Your task to perform on an android device: toggle airplane mode Image 0: 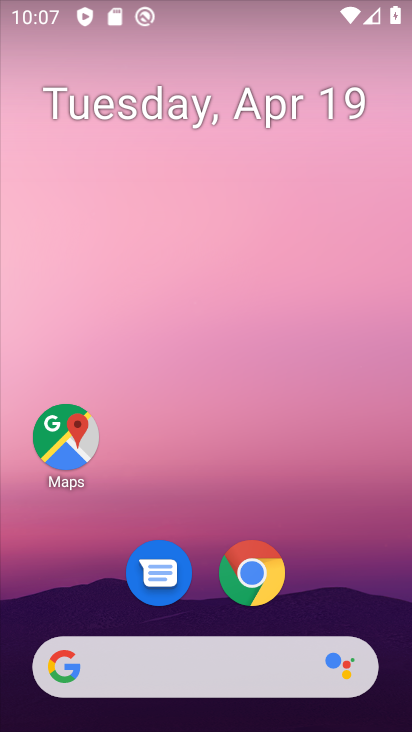
Step 0: drag from (371, 547) to (368, 142)
Your task to perform on an android device: toggle airplane mode Image 1: 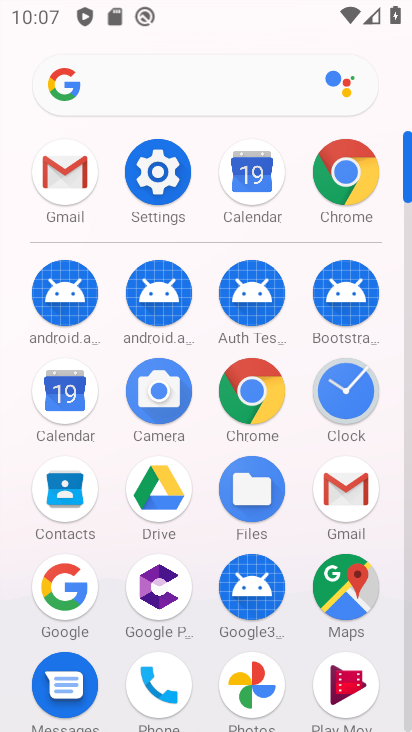
Step 1: click (150, 184)
Your task to perform on an android device: toggle airplane mode Image 2: 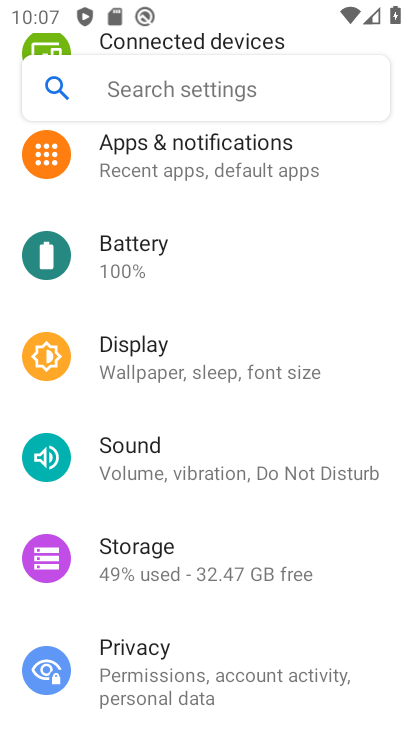
Step 2: drag from (374, 601) to (365, 361)
Your task to perform on an android device: toggle airplane mode Image 3: 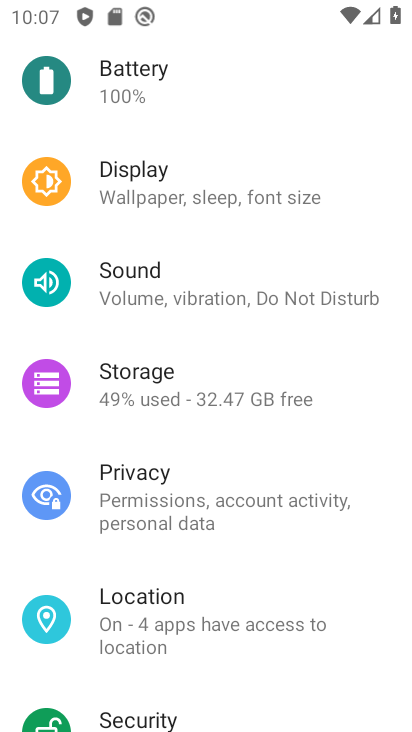
Step 3: drag from (373, 602) to (377, 170)
Your task to perform on an android device: toggle airplane mode Image 4: 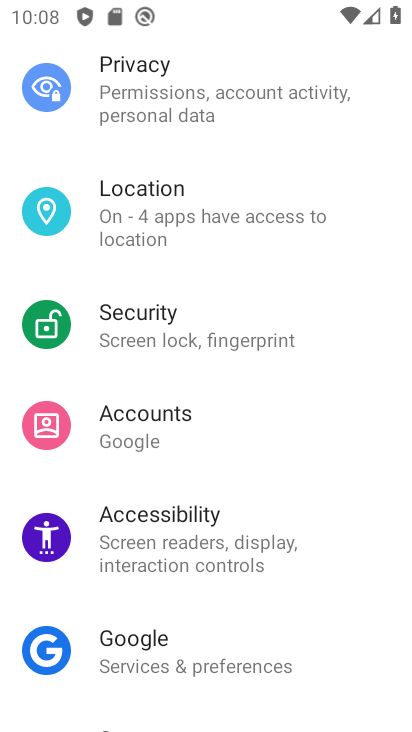
Step 4: drag from (361, 590) to (363, 369)
Your task to perform on an android device: toggle airplane mode Image 5: 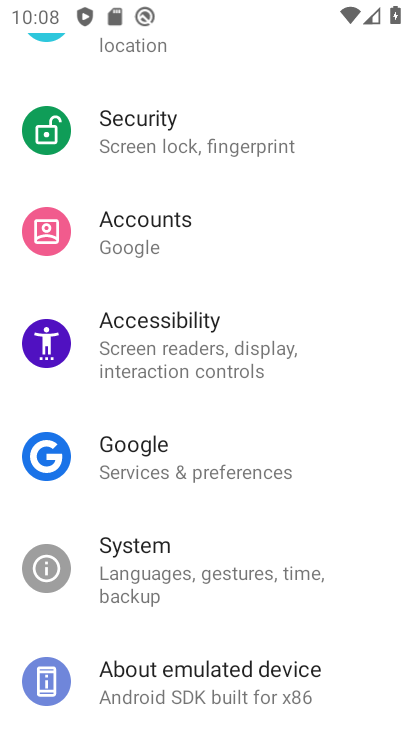
Step 5: drag from (373, 234) to (381, 513)
Your task to perform on an android device: toggle airplane mode Image 6: 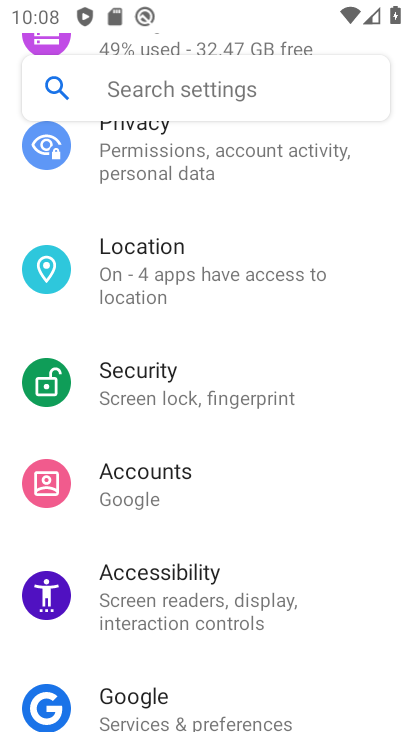
Step 6: drag from (362, 259) to (358, 524)
Your task to perform on an android device: toggle airplane mode Image 7: 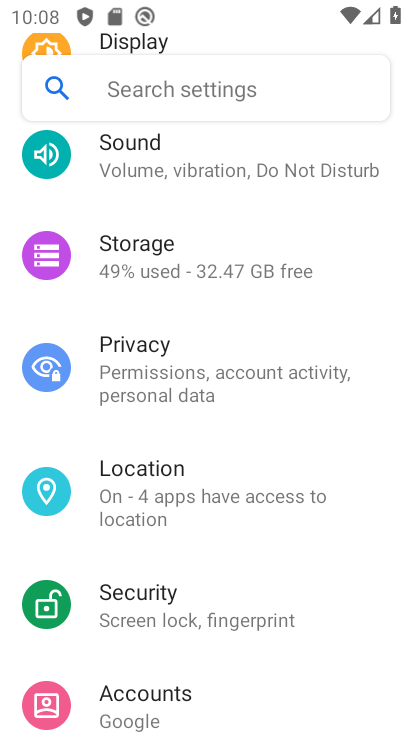
Step 7: drag from (369, 266) to (359, 534)
Your task to perform on an android device: toggle airplane mode Image 8: 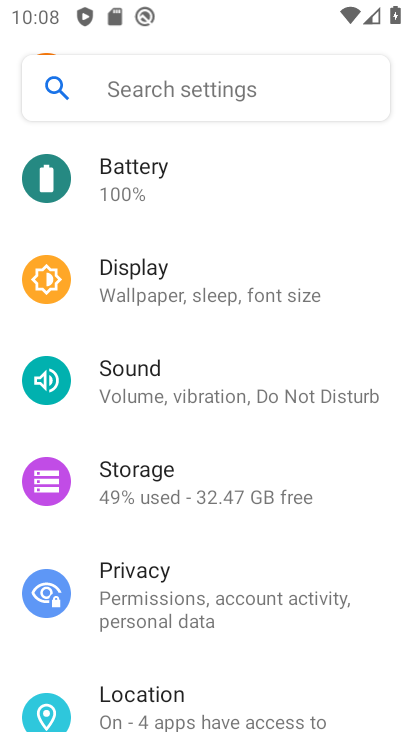
Step 8: drag from (362, 262) to (364, 555)
Your task to perform on an android device: toggle airplane mode Image 9: 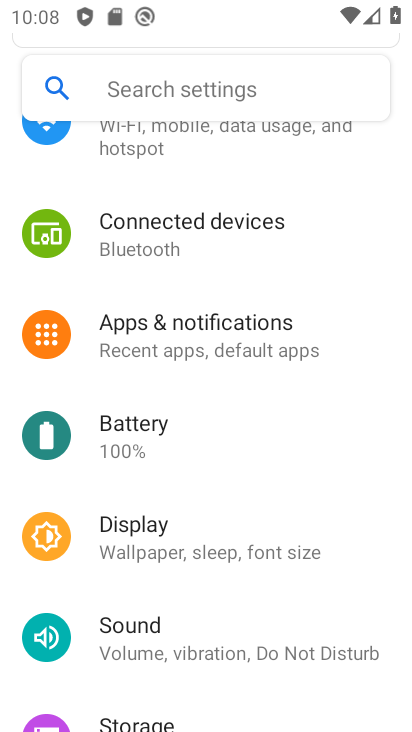
Step 9: drag from (338, 368) to (342, 527)
Your task to perform on an android device: toggle airplane mode Image 10: 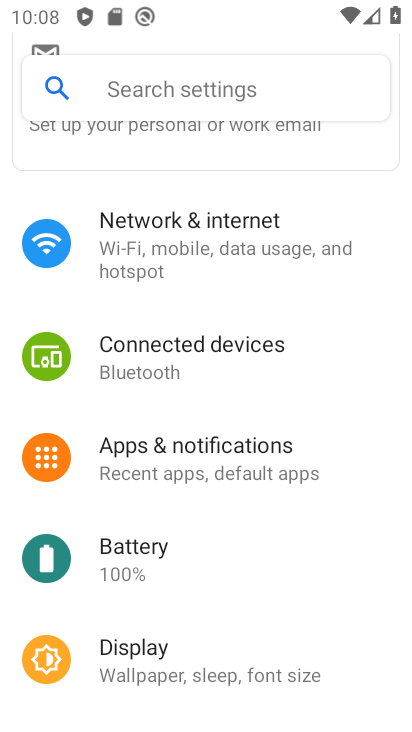
Step 10: click (211, 240)
Your task to perform on an android device: toggle airplane mode Image 11: 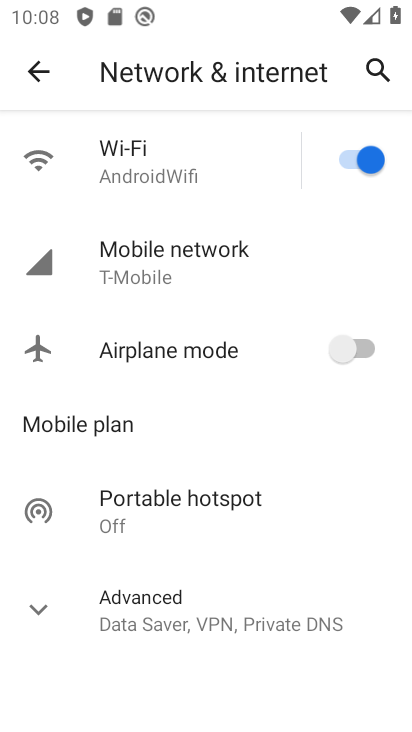
Step 11: click (349, 348)
Your task to perform on an android device: toggle airplane mode Image 12: 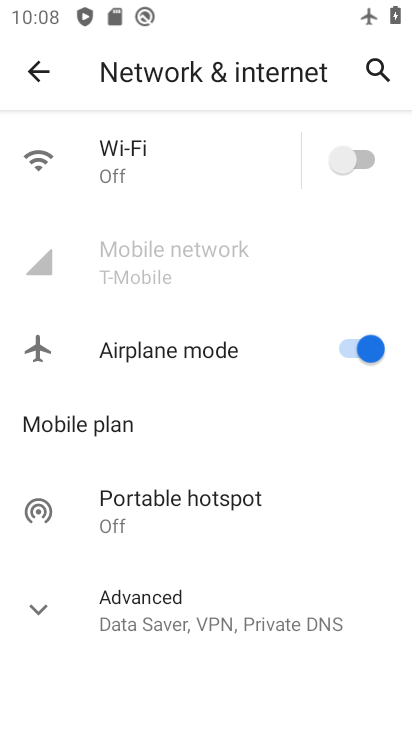
Step 12: task complete